Your task to perform on an android device: turn smart compose on in the gmail app Image 0: 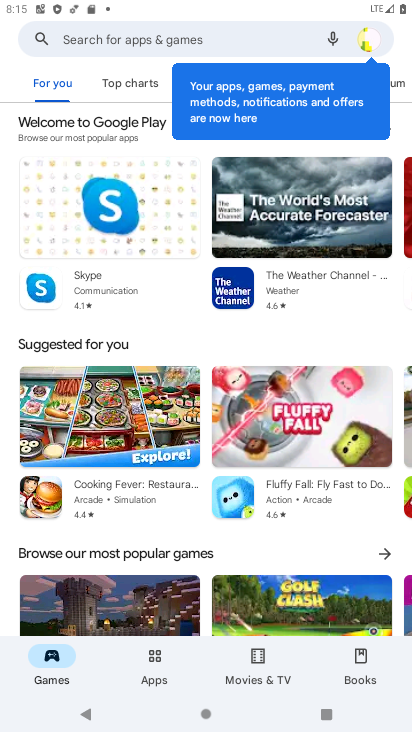
Step 0: press home button
Your task to perform on an android device: turn smart compose on in the gmail app Image 1: 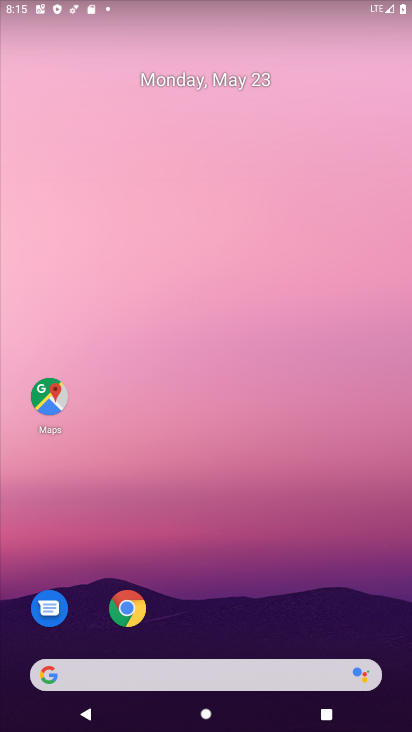
Step 1: drag from (189, 656) to (249, 4)
Your task to perform on an android device: turn smart compose on in the gmail app Image 2: 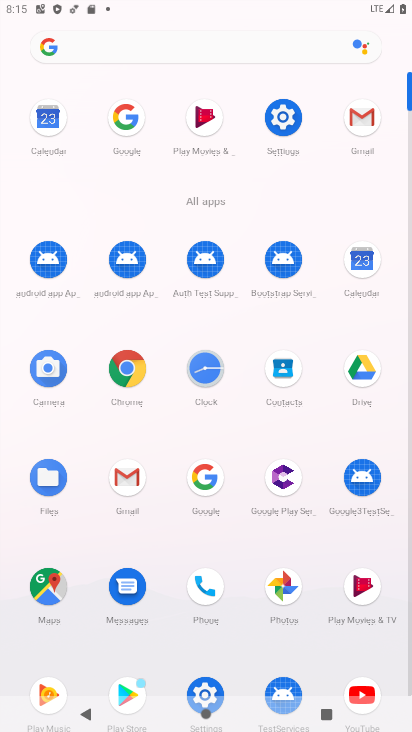
Step 2: click (129, 486)
Your task to perform on an android device: turn smart compose on in the gmail app Image 3: 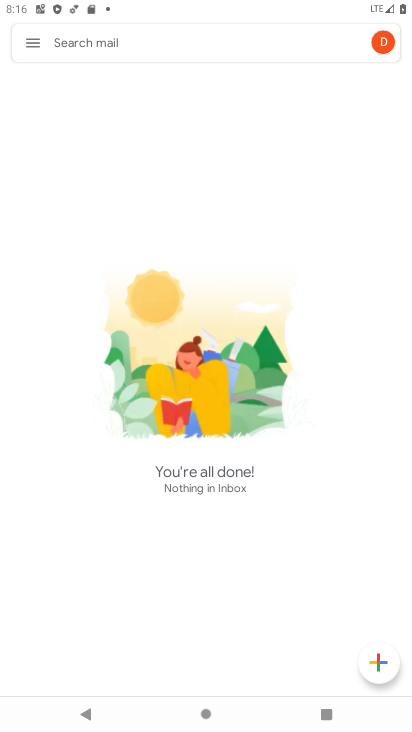
Step 3: click (36, 47)
Your task to perform on an android device: turn smart compose on in the gmail app Image 4: 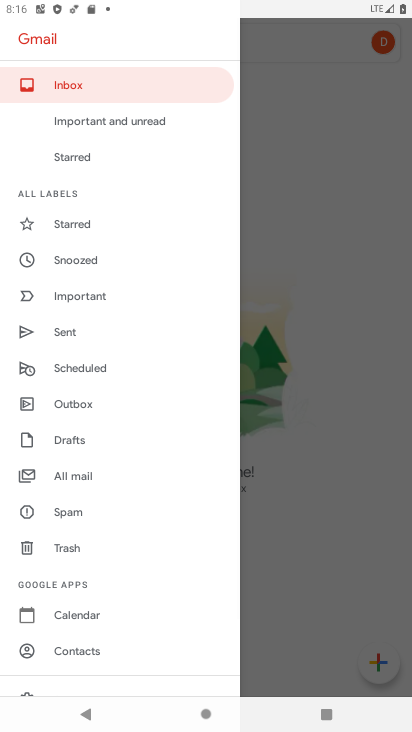
Step 4: drag from (77, 613) to (68, 93)
Your task to perform on an android device: turn smart compose on in the gmail app Image 5: 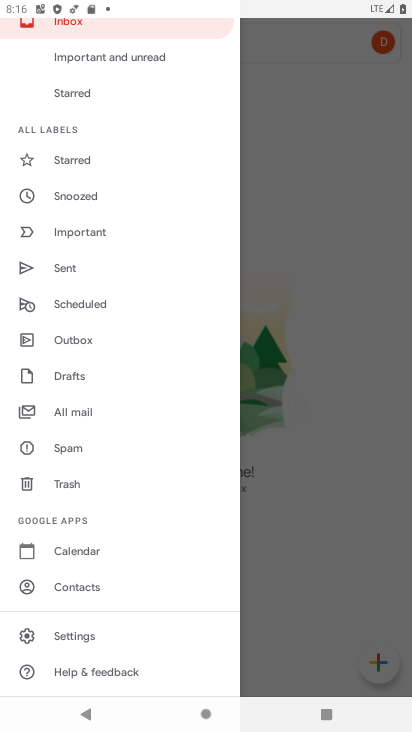
Step 5: click (61, 633)
Your task to perform on an android device: turn smart compose on in the gmail app Image 6: 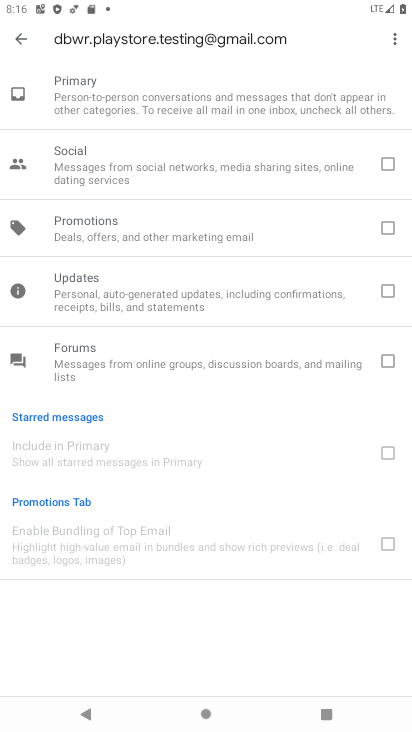
Step 6: click (30, 32)
Your task to perform on an android device: turn smart compose on in the gmail app Image 7: 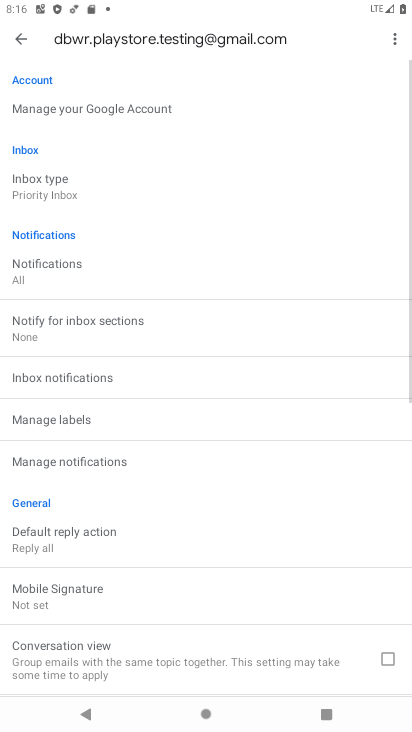
Step 7: task complete